Your task to perform on an android device: Show me recent news Image 0: 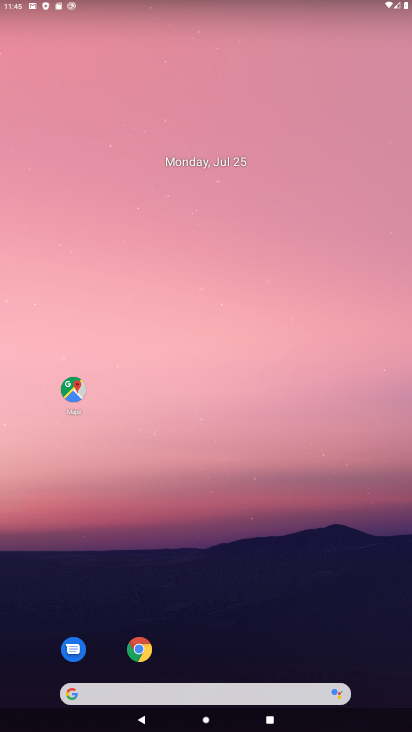
Step 0: drag from (351, 228) to (346, 53)
Your task to perform on an android device: Show me recent news Image 1: 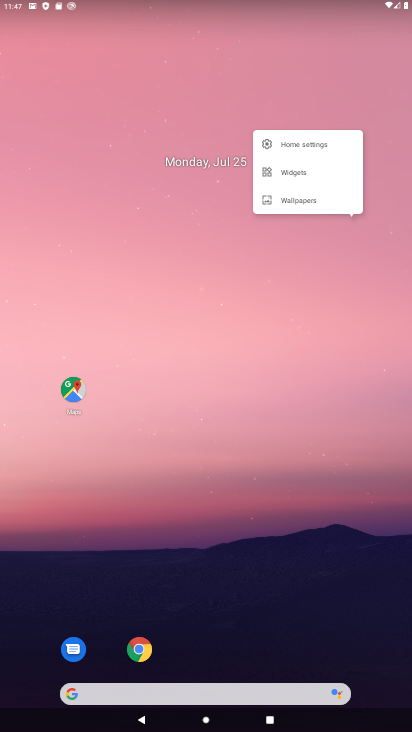
Step 1: task complete